Your task to perform on an android device: Do I have any events tomorrow? Image 0: 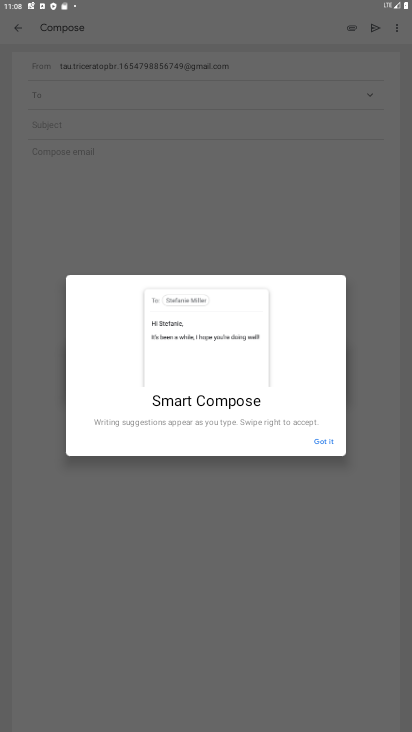
Step 0: press home button
Your task to perform on an android device: Do I have any events tomorrow? Image 1: 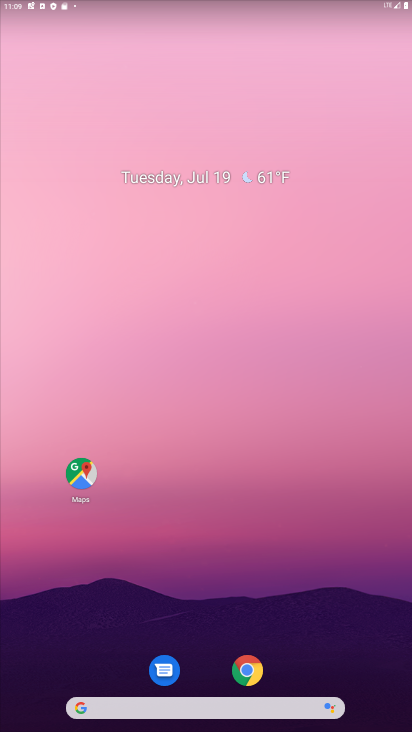
Step 1: drag from (167, 661) to (170, 164)
Your task to perform on an android device: Do I have any events tomorrow? Image 2: 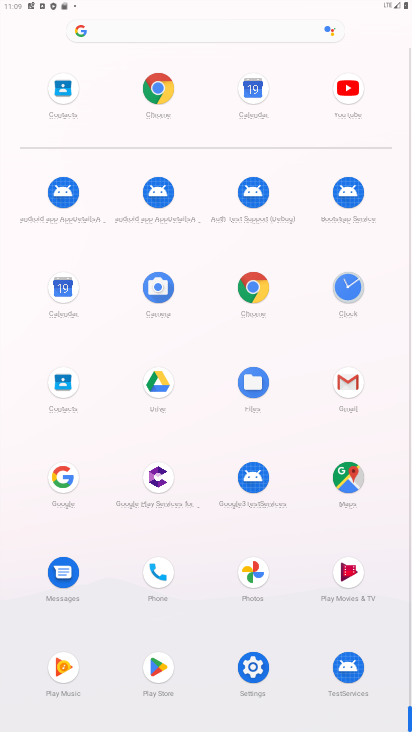
Step 2: click (55, 298)
Your task to perform on an android device: Do I have any events tomorrow? Image 3: 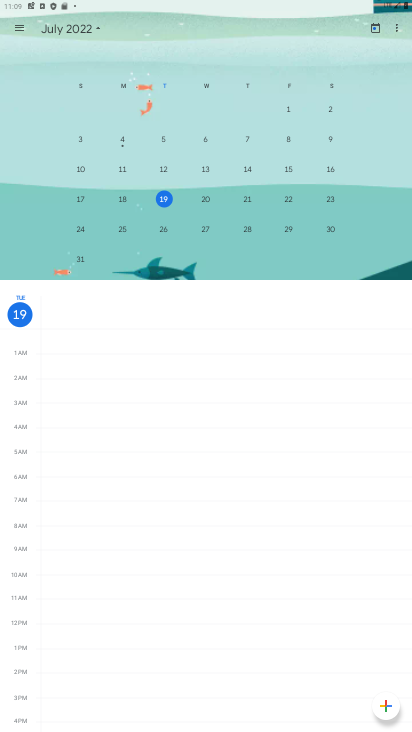
Step 3: click (205, 198)
Your task to perform on an android device: Do I have any events tomorrow? Image 4: 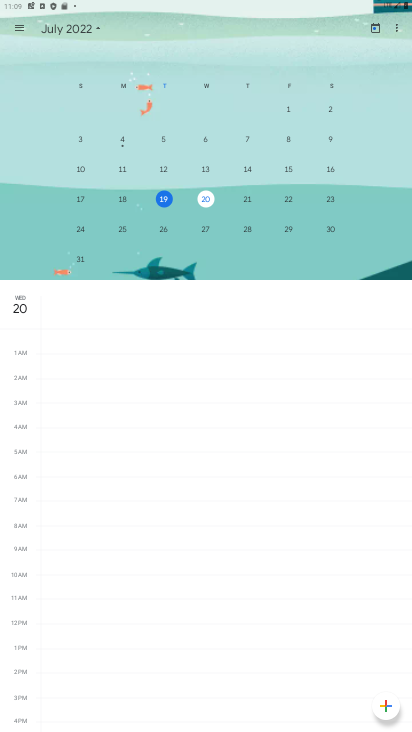
Step 4: click (213, 195)
Your task to perform on an android device: Do I have any events tomorrow? Image 5: 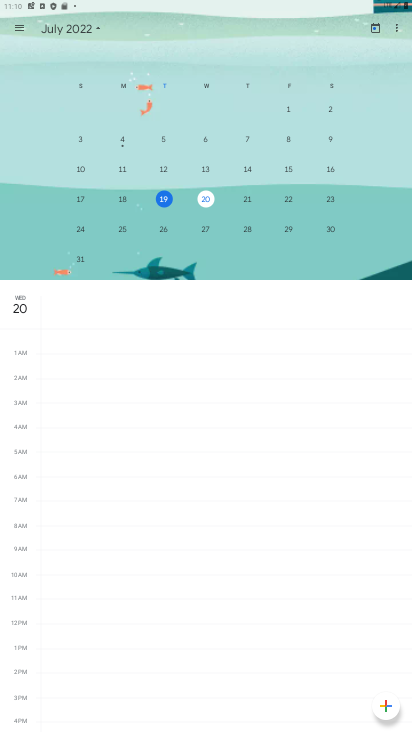
Step 5: task complete